Your task to perform on an android device: uninstall "Paramount+ | Peak Streaming" Image 0: 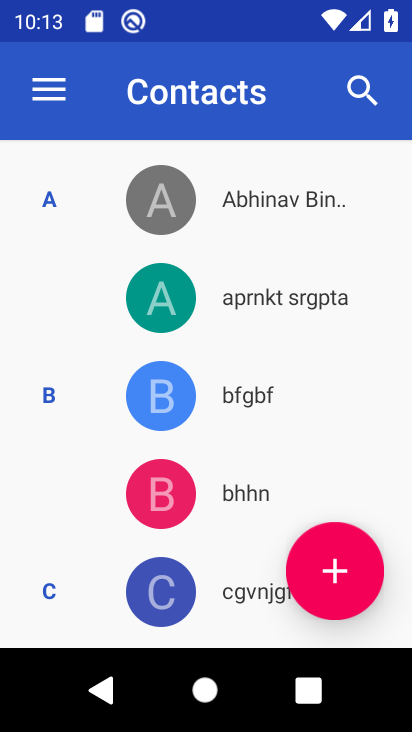
Step 0: press home button
Your task to perform on an android device: uninstall "Paramount+ | Peak Streaming" Image 1: 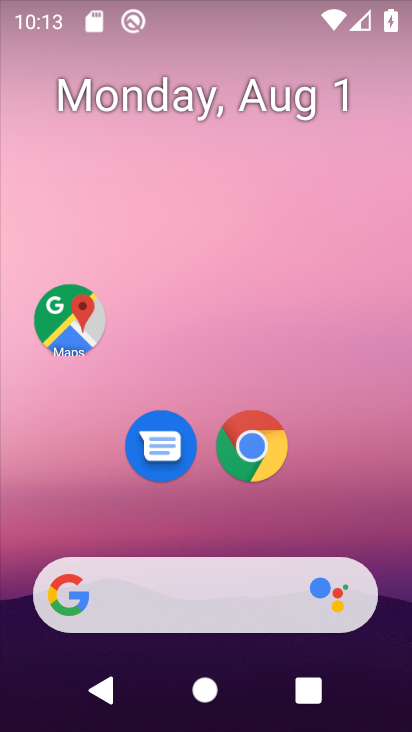
Step 1: drag from (194, 475) to (197, 165)
Your task to perform on an android device: uninstall "Paramount+ | Peak Streaming" Image 2: 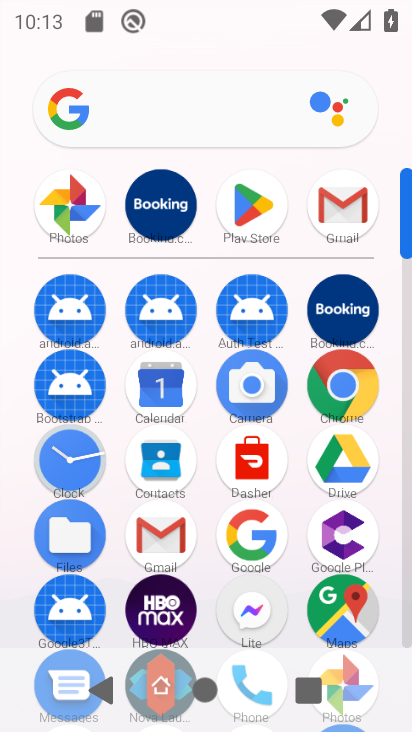
Step 2: click (246, 195)
Your task to perform on an android device: uninstall "Paramount+ | Peak Streaming" Image 3: 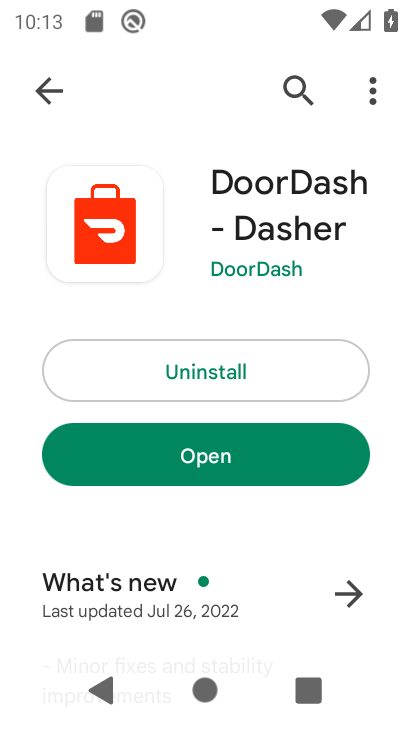
Step 3: click (311, 74)
Your task to perform on an android device: uninstall "Paramount+ | Peak Streaming" Image 4: 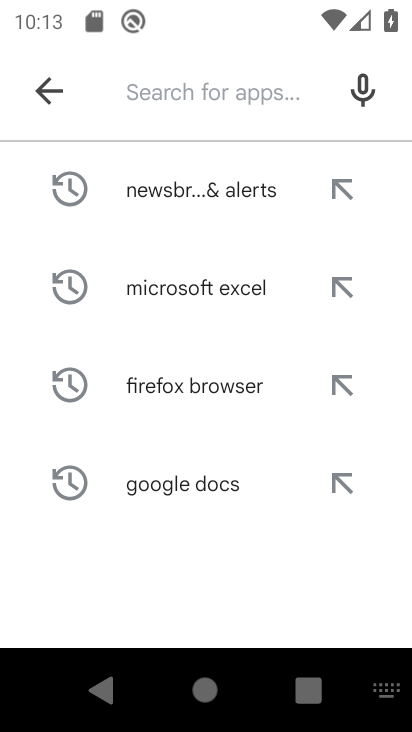
Step 4: type "Paramount+ | Peak Streaming"
Your task to perform on an android device: uninstall "Paramount+ | Peak Streaming" Image 5: 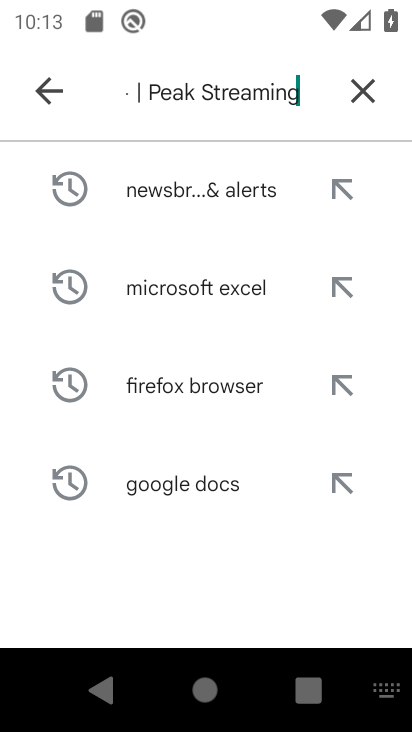
Step 5: type ""
Your task to perform on an android device: uninstall "Paramount+ | Peak Streaming" Image 6: 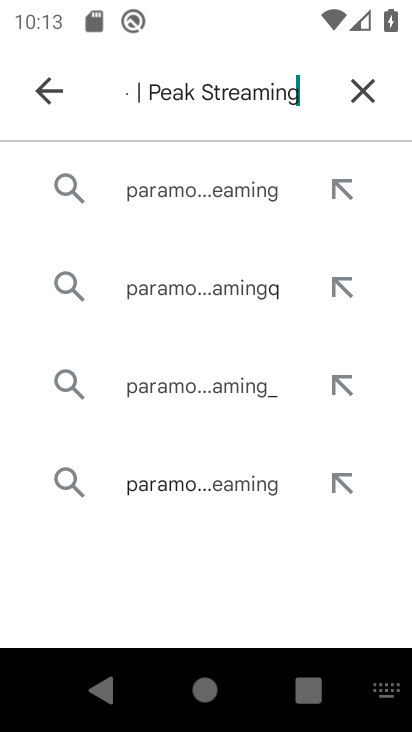
Step 6: click (169, 185)
Your task to perform on an android device: uninstall "Paramount+ | Peak Streaming" Image 7: 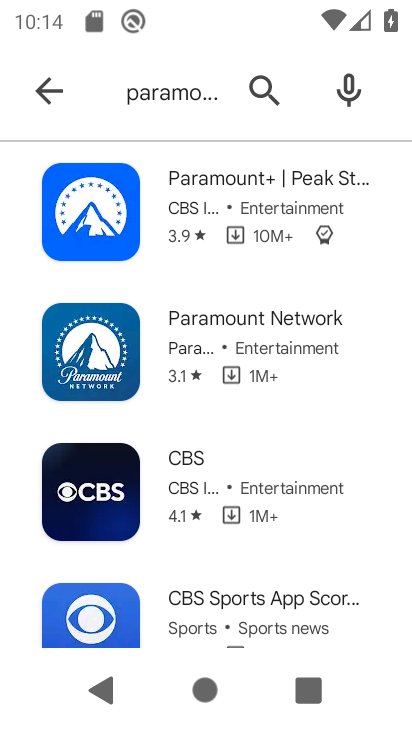
Step 7: click (219, 193)
Your task to perform on an android device: uninstall "Paramount+ | Peak Streaming" Image 8: 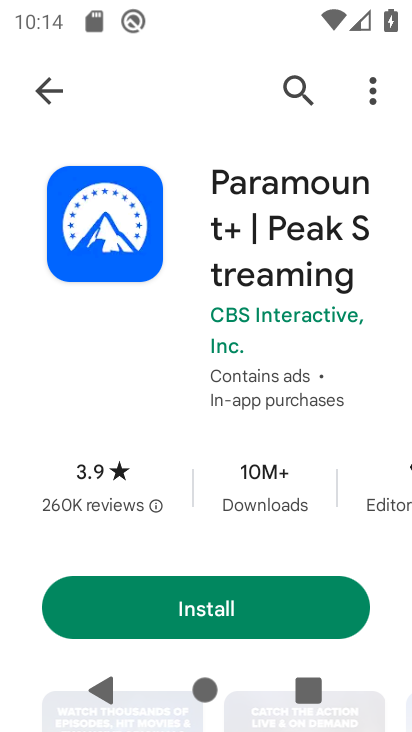
Step 8: task complete